Your task to perform on an android device: Check the news Image 0: 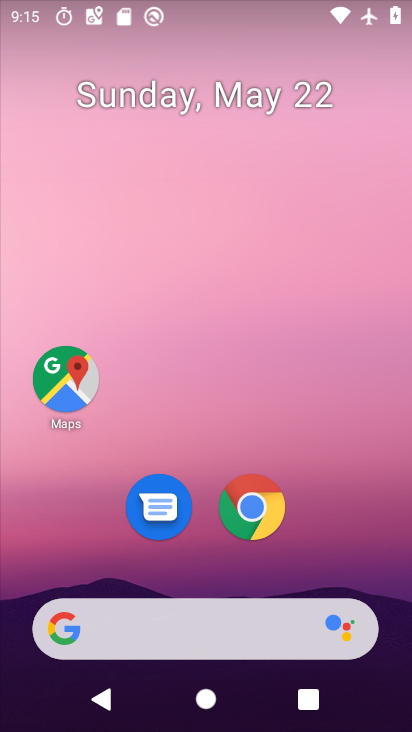
Step 0: click (150, 629)
Your task to perform on an android device: Check the news Image 1: 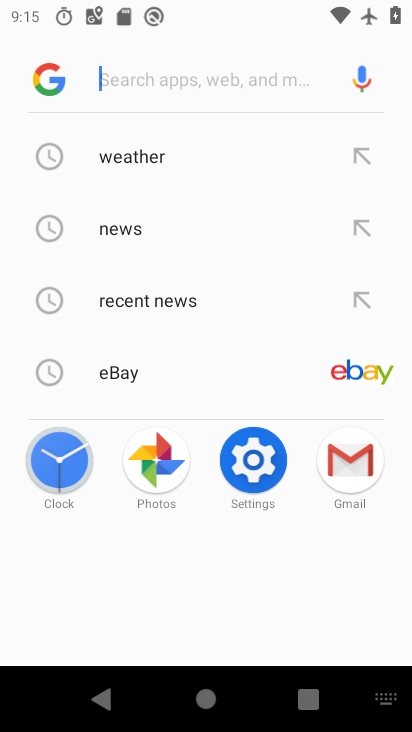
Step 1: click (131, 236)
Your task to perform on an android device: Check the news Image 2: 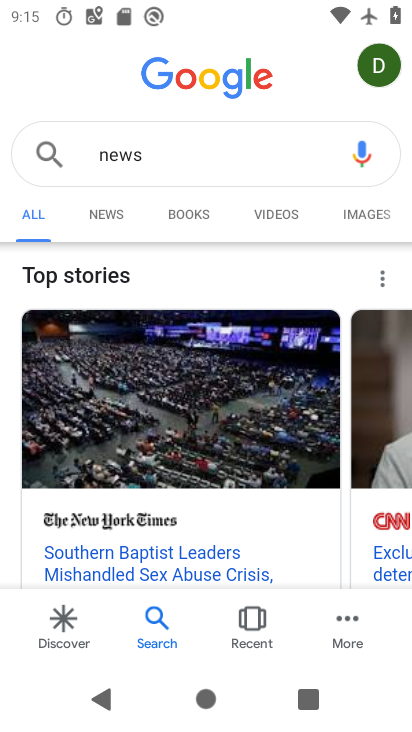
Step 2: click (117, 202)
Your task to perform on an android device: Check the news Image 3: 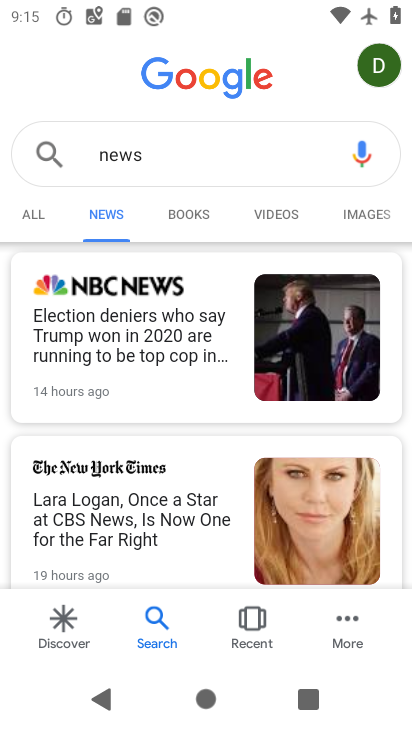
Step 3: task complete